Your task to perform on an android device: Show me productivity apps on the Play Store Image 0: 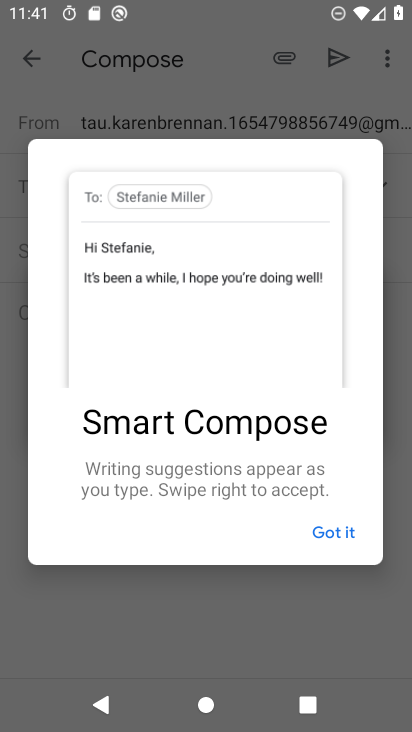
Step 0: press home button
Your task to perform on an android device: Show me productivity apps on the Play Store Image 1: 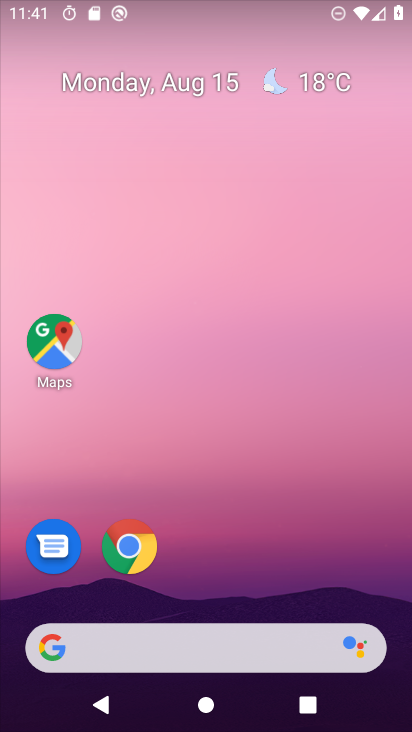
Step 1: drag from (227, 615) to (233, 131)
Your task to perform on an android device: Show me productivity apps on the Play Store Image 2: 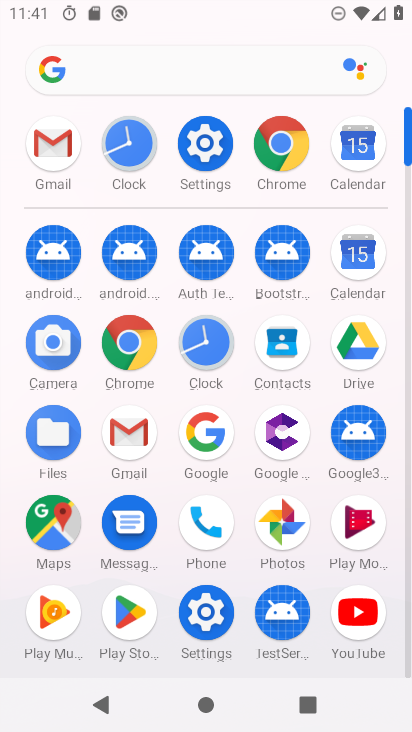
Step 2: click (125, 605)
Your task to perform on an android device: Show me productivity apps on the Play Store Image 3: 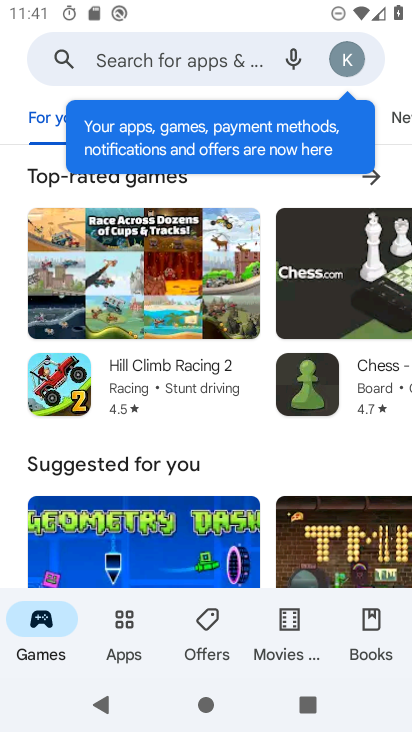
Step 3: click (122, 638)
Your task to perform on an android device: Show me productivity apps on the Play Store Image 4: 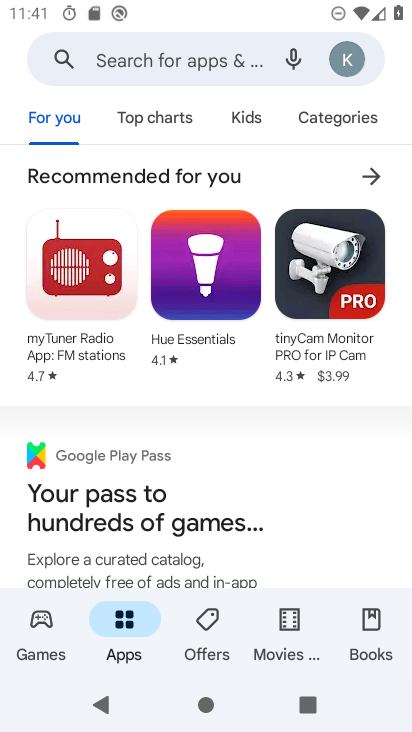
Step 4: click (333, 111)
Your task to perform on an android device: Show me productivity apps on the Play Store Image 5: 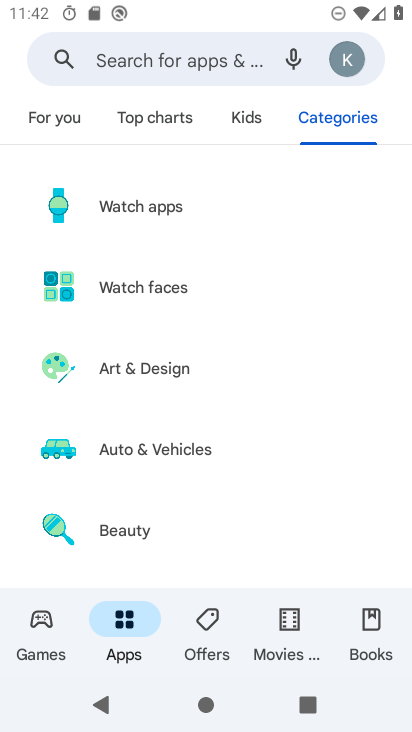
Step 5: drag from (158, 526) to (157, 432)
Your task to perform on an android device: Show me productivity apps on the Play Store Image 6: 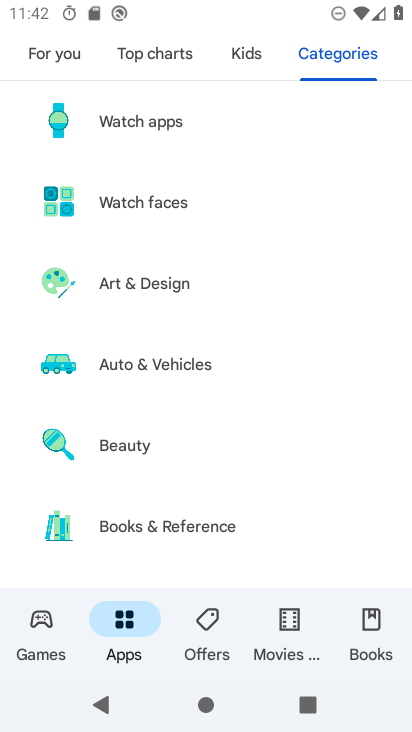
Step 6: drag from (154, 554) to (151, 319)
Your task to perform on an android device: Show me productivity apps on the Play Store Image 7: 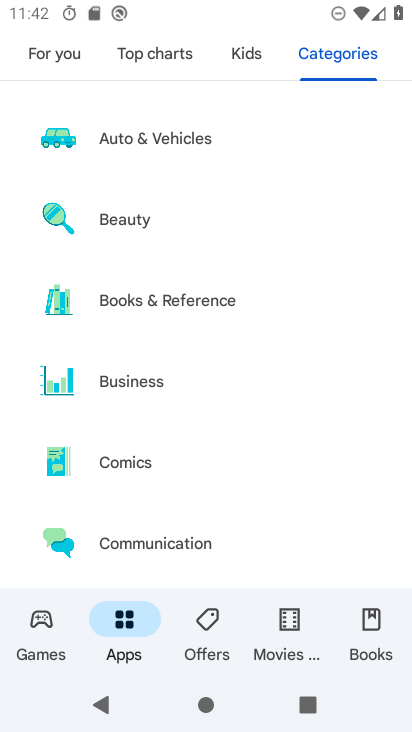
Step 7: drag from (145, 548) to (151, 256)
Your task to perform on an android device: Show me productivity apps on the Play Store Image 8: 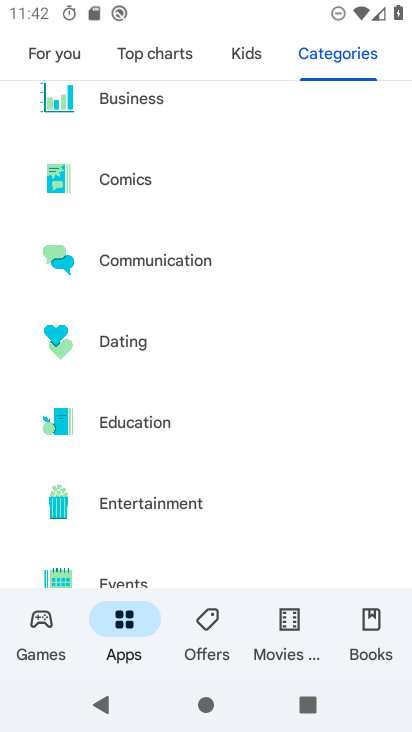
Step 8: drag from (135, 523) to (153, 313)
Your task to perform on an android device: Show me productivity apps on the Play Store Image 9: 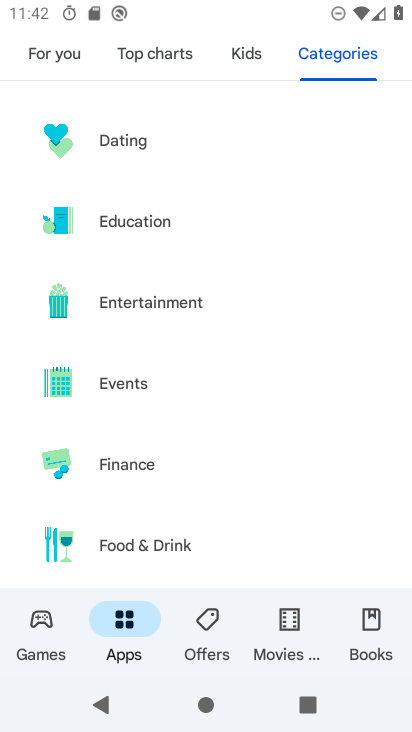
Step 9: drag from (161, 557) to (171, 318)
Your task to perform on an android device: Show me productivity apps on the Play Store Image 10: 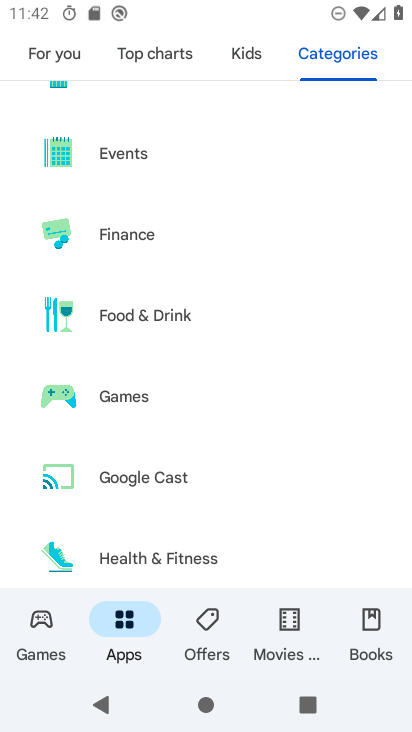
Step 10: drag from (147, 543) to (147, 264)
Your task to perform on an android device: Show me productivity apps on the Play Store Image 11: 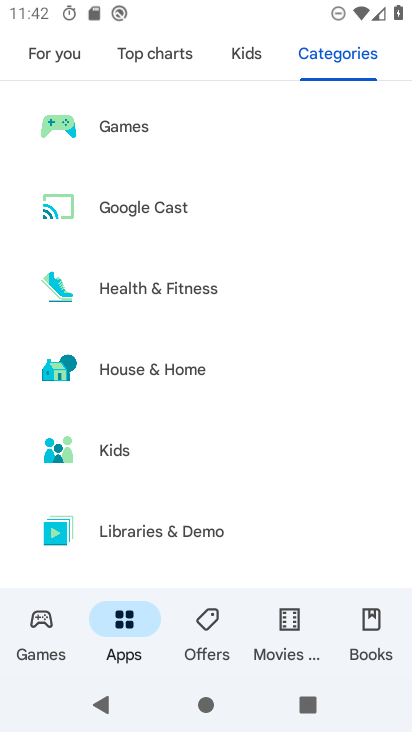
Step 11: drag from (165, 528) to (165, 318)
Your task to perform on an android device: Show me productivity apps on the Play Store Image 12: 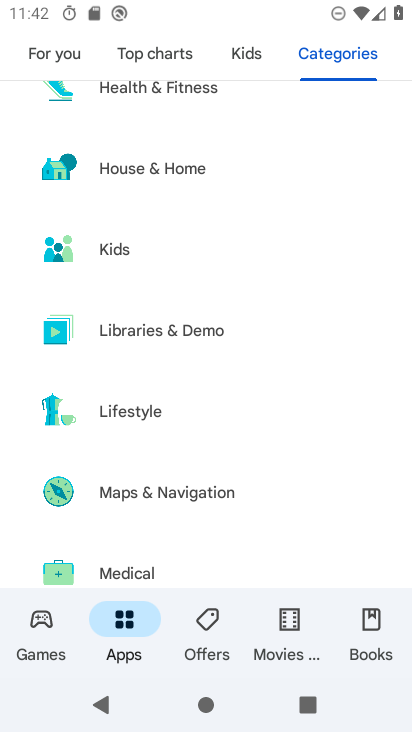
Step 12: drag from (150, 524) to (154, 236)
Your task to perform on an android device: Show me productivity apps on the Play Store Image 13: 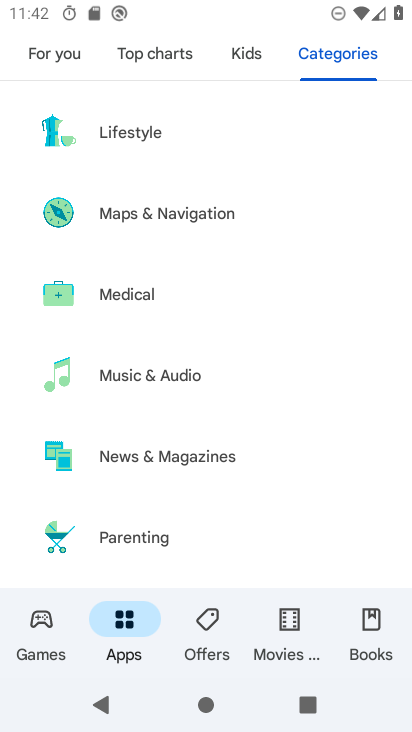
Step 13: drag from (148, 545) to (153, 278)
Your task to perform on an android device: Show me productivity apps on the Play Store Image 14: 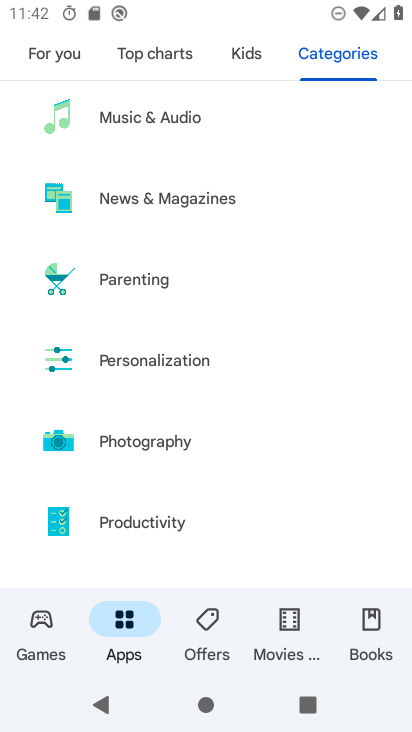
Step 14: click (133, 521)
Your task to perform on an android device: Show me productivity apps on the Play Store Image 15: 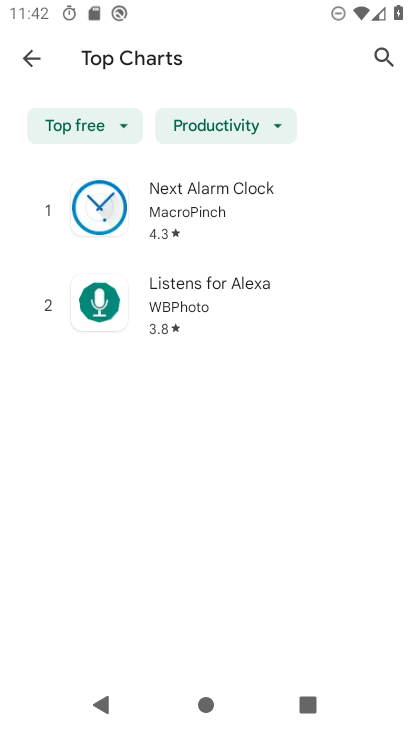
Step 15: task complete